Your task to perform on an android device: Search for a nice rug on Crate & Barrel Image 0: 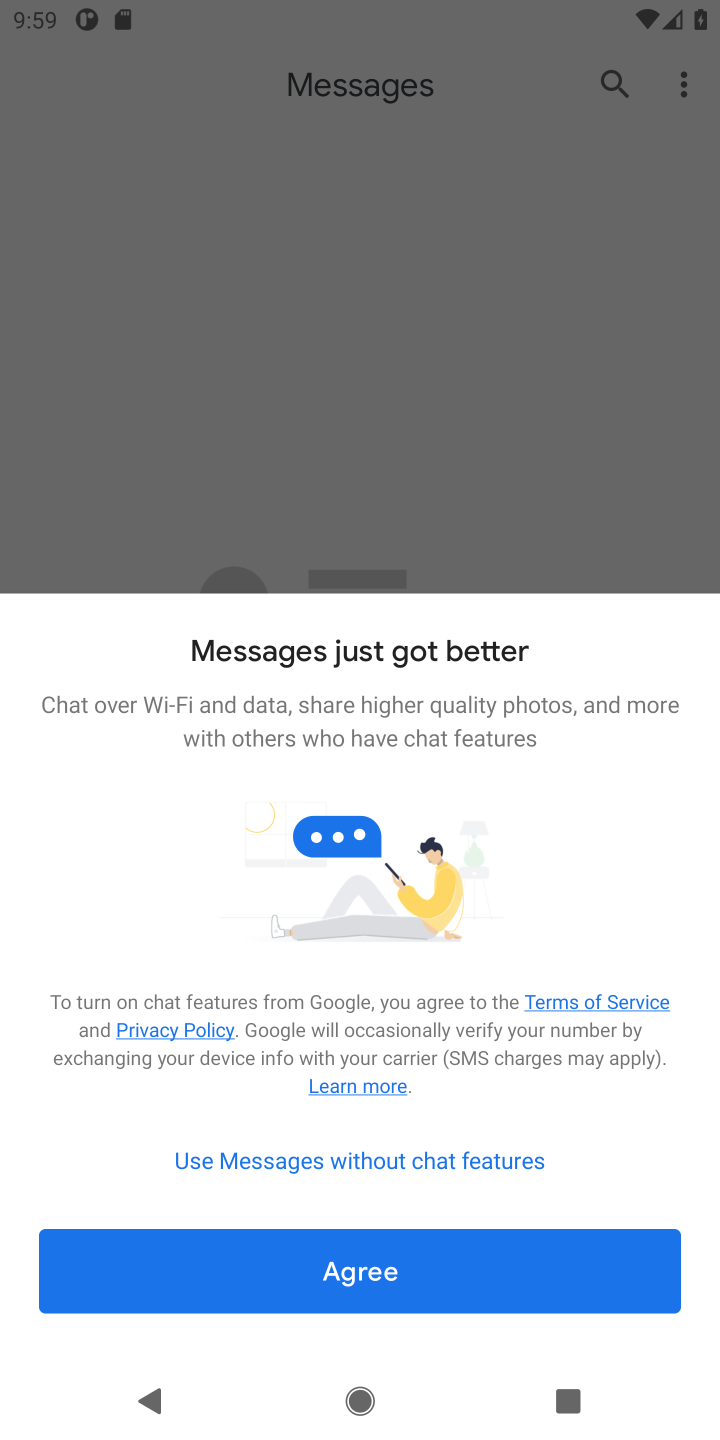
Step 0: press home button
Your task to perform on an android device: Search for a nice rug on Crate & Barrel Image 1: 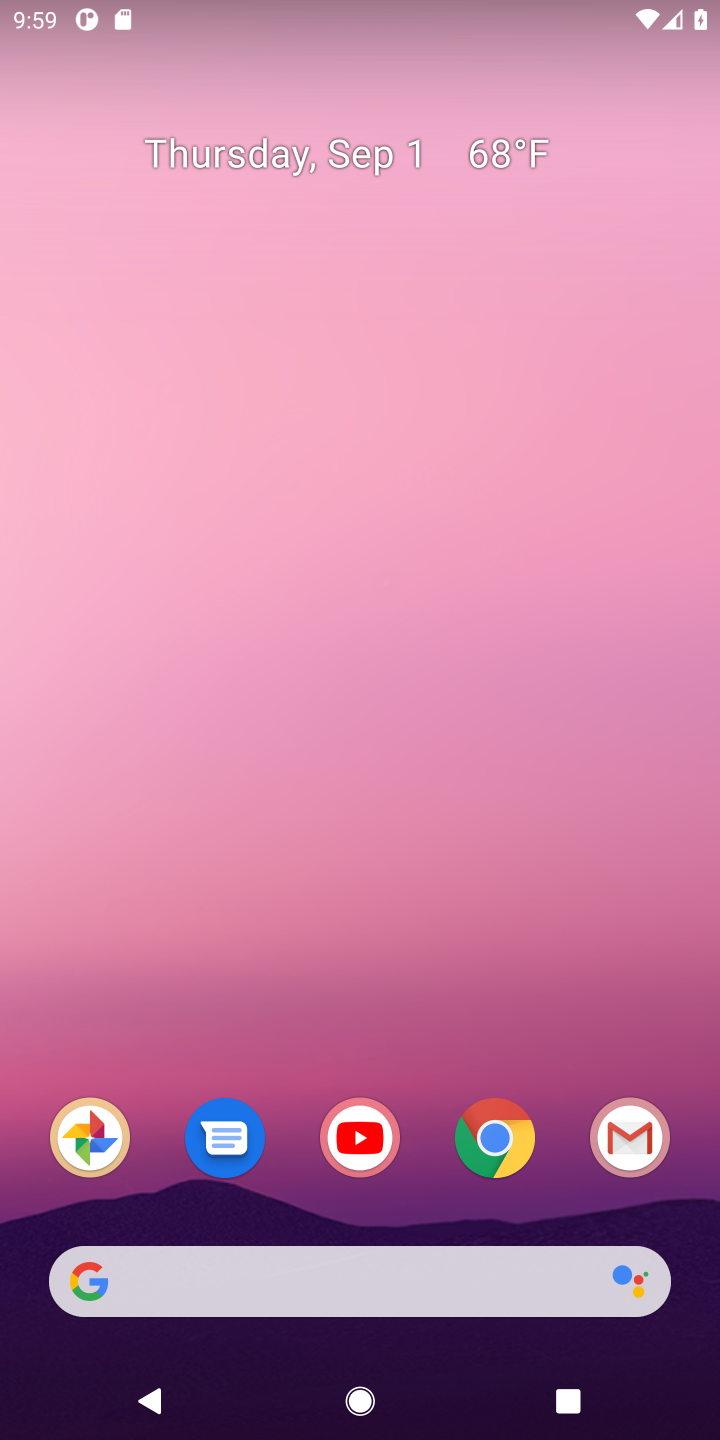
Step 1: click (448, 1280)
Your task to perform on an android device: Search for a nice rug on Crate & Barrel Image 2: 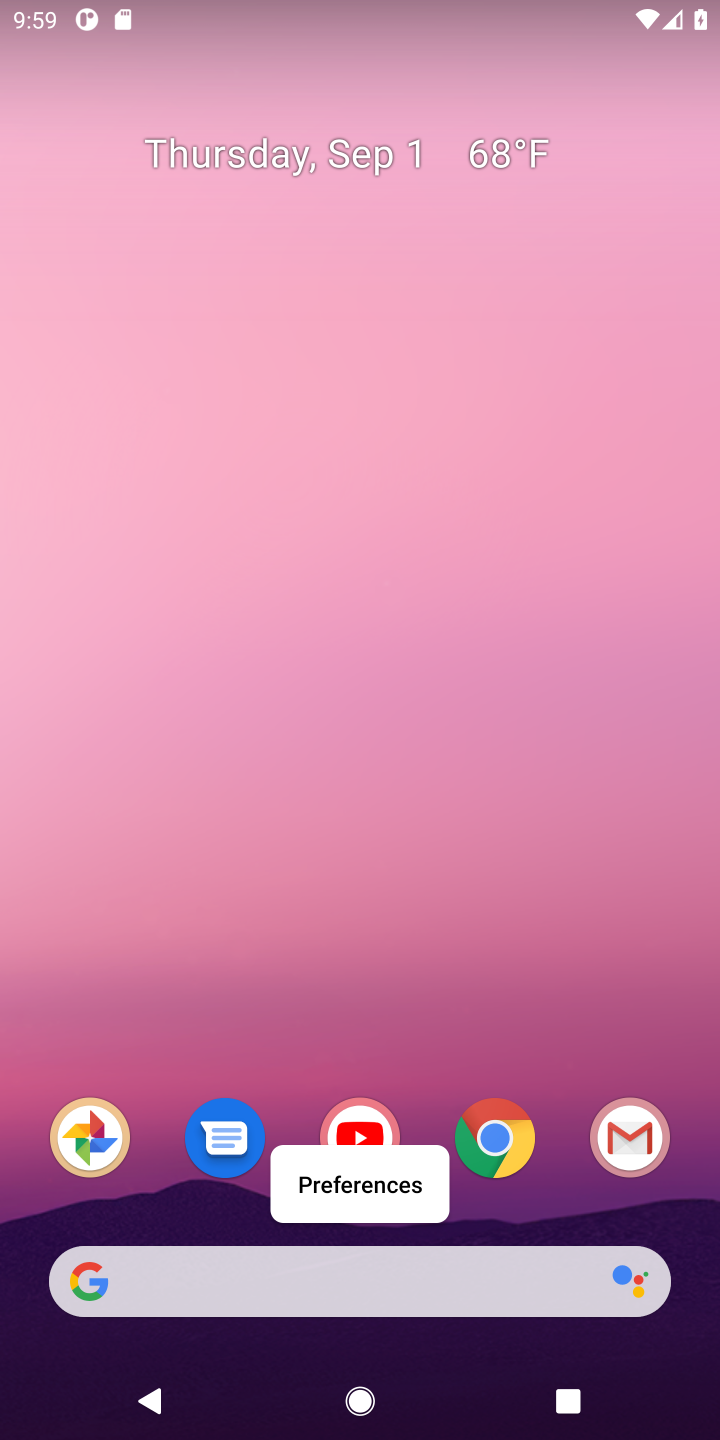
Step 2: click (423, 1280)
Your task to perform on an android device: Search for a nice rug on Crate & Barrel Image 3: 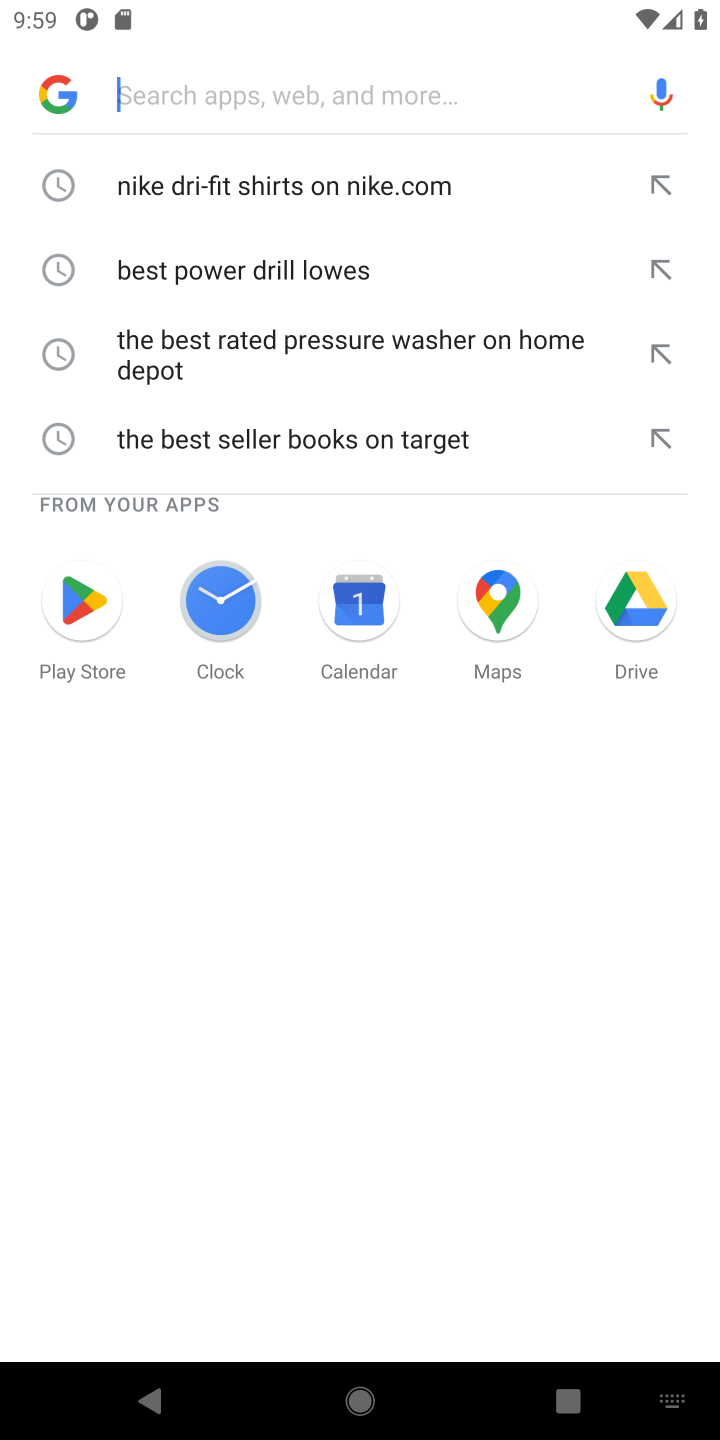
Step 3: type "a nice rug on Crate & Barrel"
Your task to perform on an android device: Search for a nice rug on Crate & Barrel Image 4: 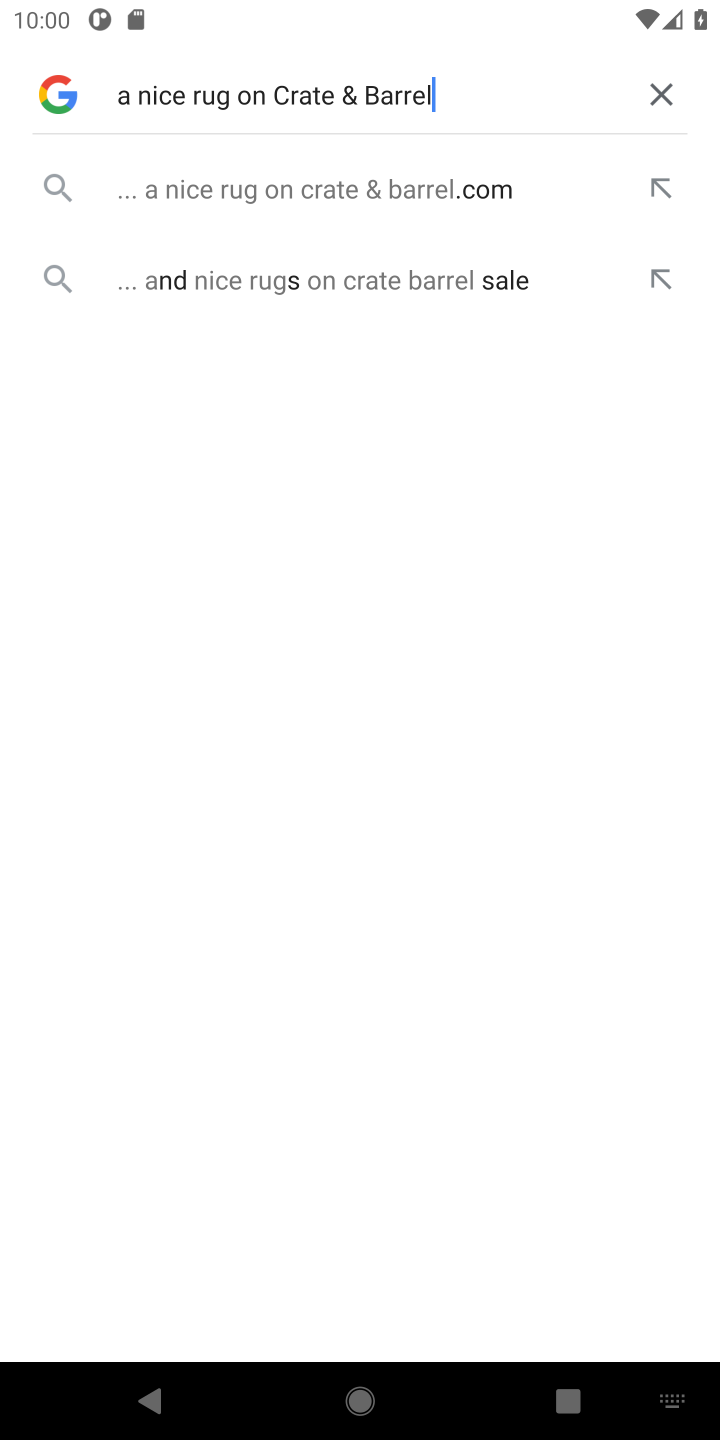
Step 4: click (432, 172)
Your task to perform on an android device: Search for a nice rug on Crate & Barrel Image 5: 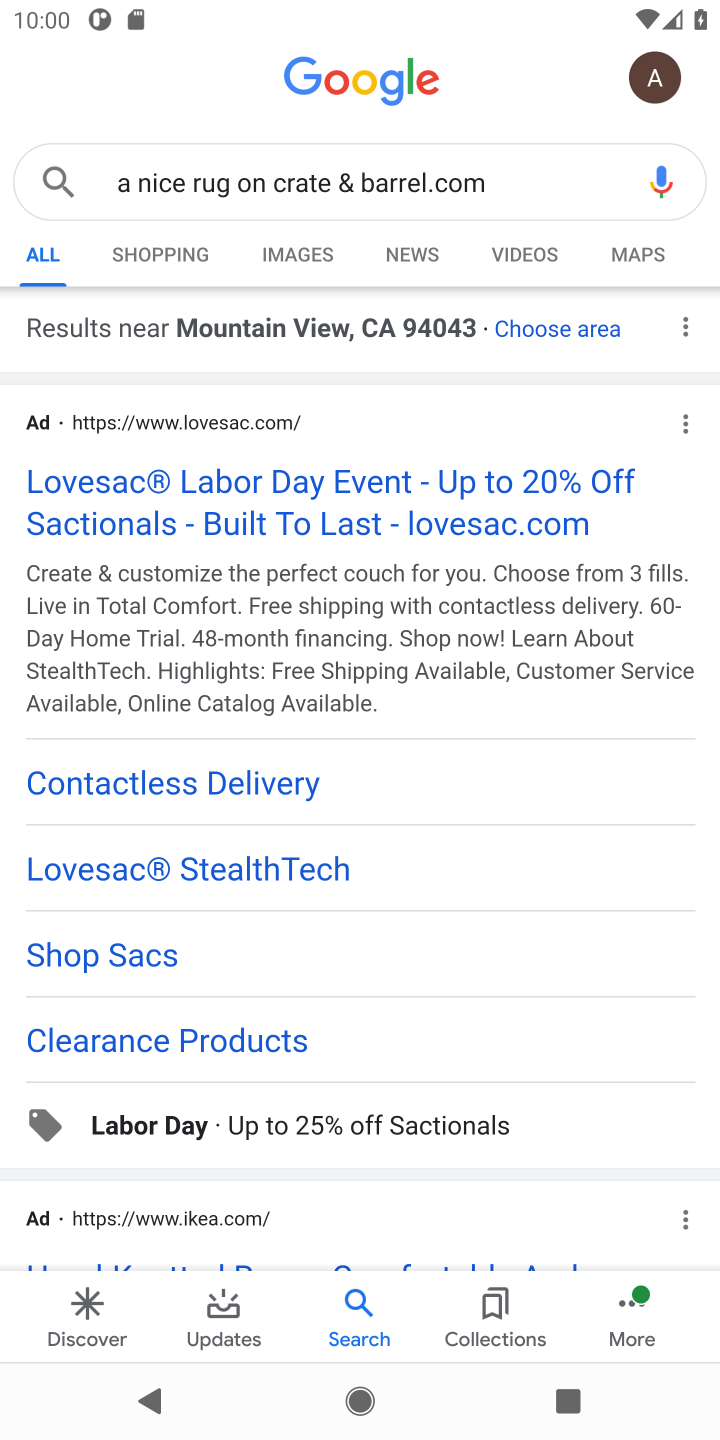
Step 5: click (220, 504)
Your task to perform on an android device: Search for a nice rug on Crate & Barrel Image 6: 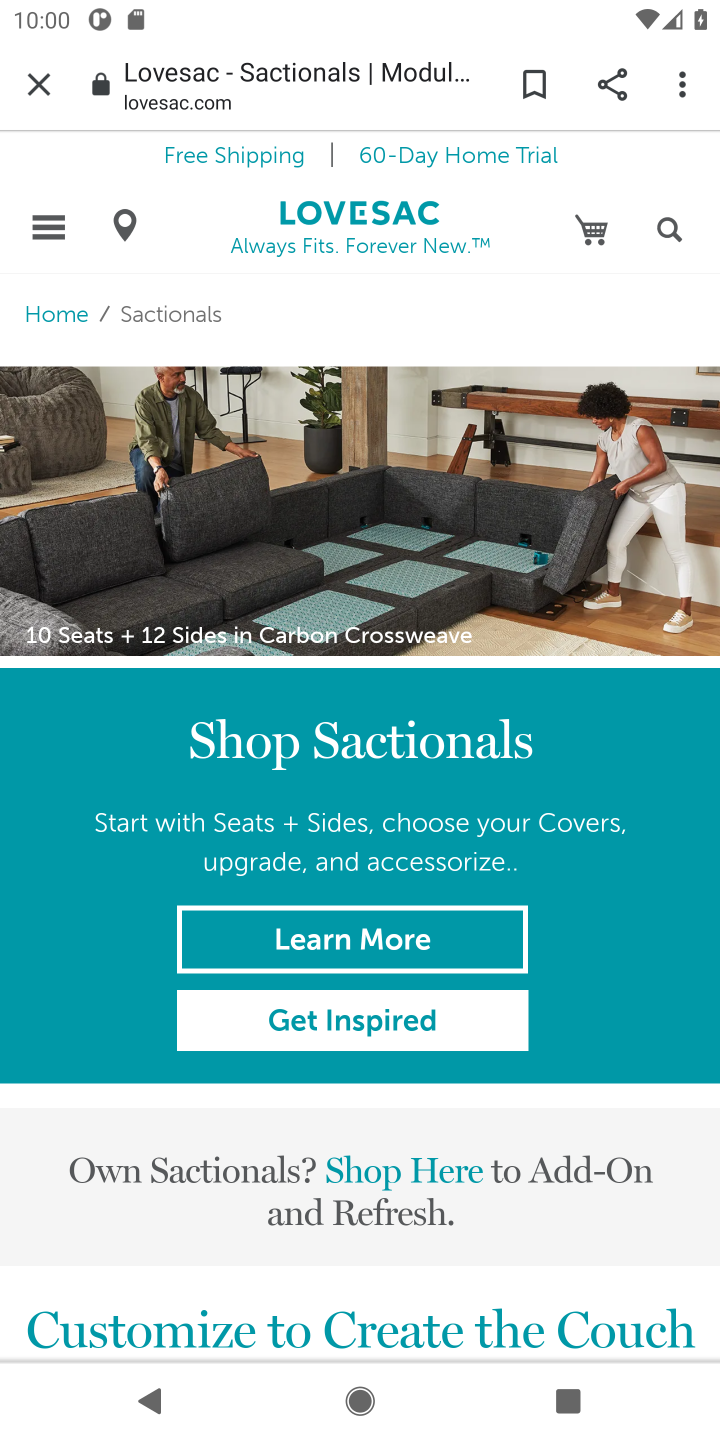
Step 6: task complete